Your task to perform on an android device: Clear all items from cart on ebay. Add "beats solo 3" to the cart on ebay, then select checkout. Image 0: 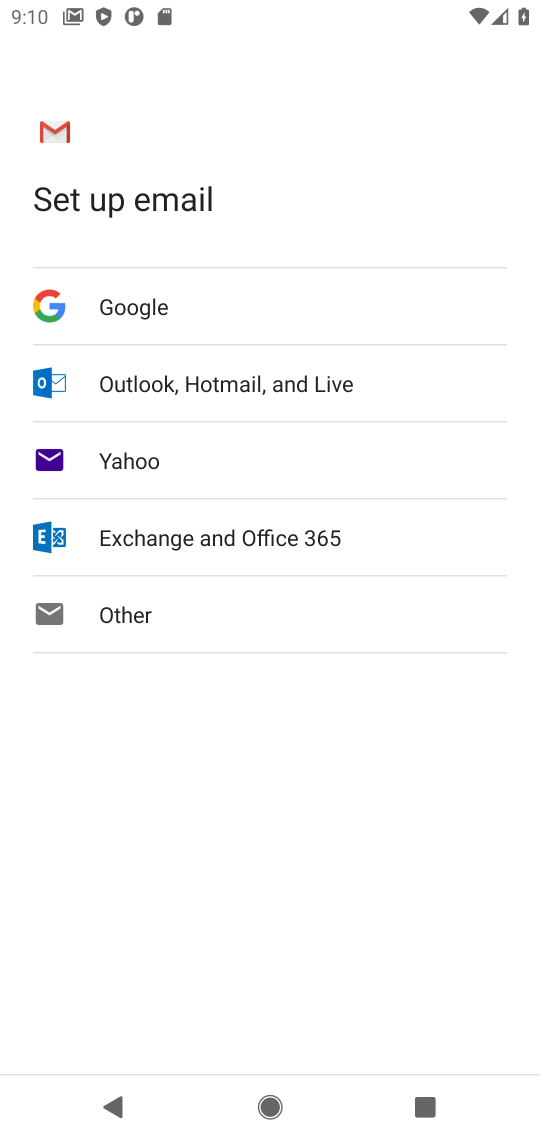
Step 0: press home button
Your task to perform on an android device: Clear all items from cart on ebay. Add "beats solo 3" to the cart on ebay, then select checkout. Image 1: 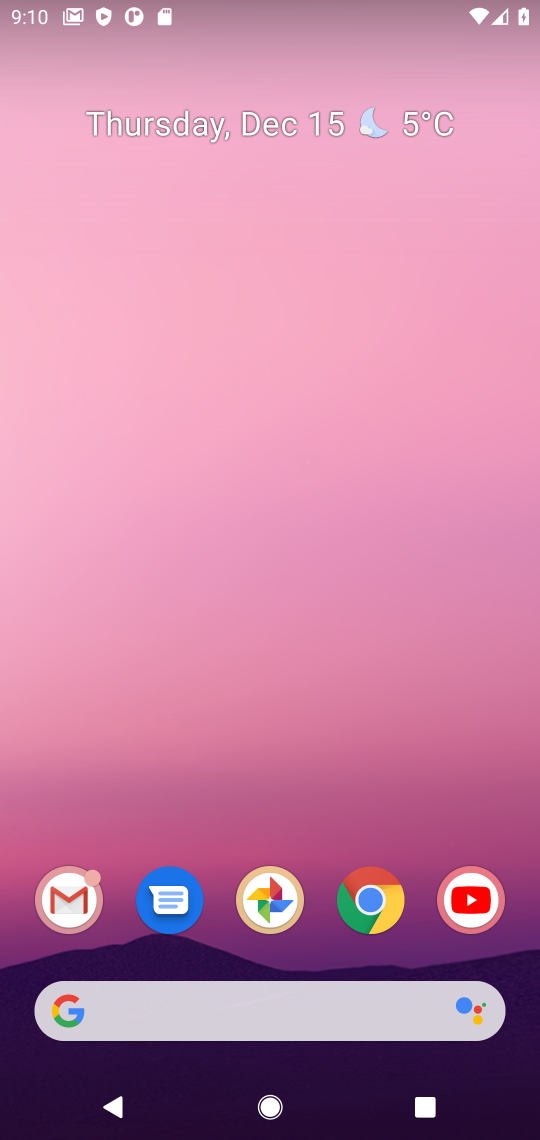
Step 1: click (357, 913)
Your task to perform on an android device: Clear all items from cart on ebay. Add "beats solo 3" to the cart on ebay, then select checkout. Image 2: 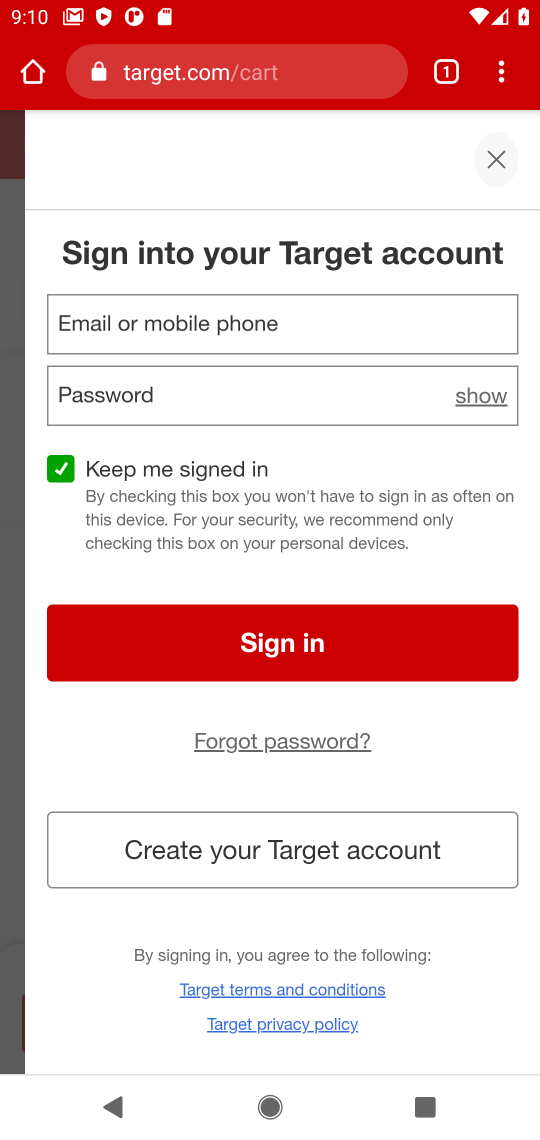
Step 2: click (189, 85)
Your task to perform on an android device: Clear all items from cart on ebay. Add "beats solo 3" to the cart on ebay, then select checkout. Image 3: 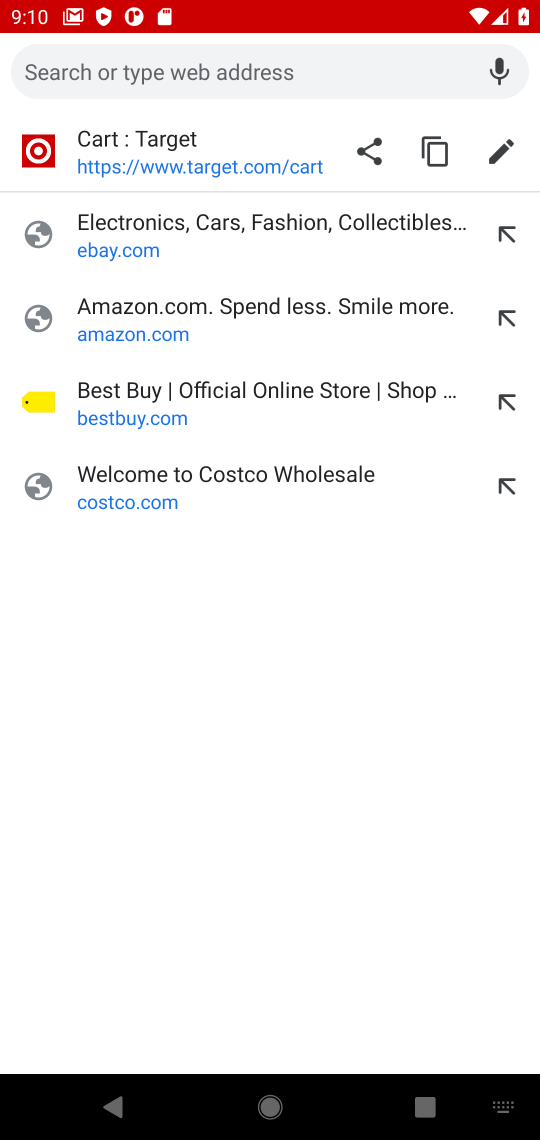
Step 3: click (105, 234)
Your task to perform on an android device: Clear all items from cart on ebay. Add "beats solo 3" to the cart on ebay, then select checkout. Image 4: 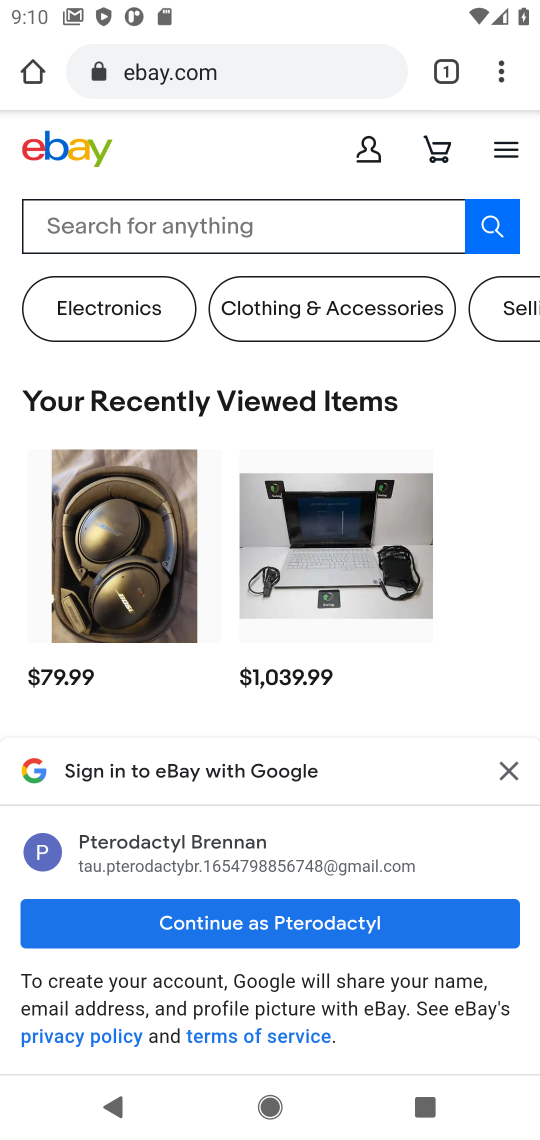
Step 4: click (334, 235)
Your task to perform on an android device: Clear all items from cart on ebay. Add "beats solo 3" to the cart on ebay, then select checkout. Image 5: 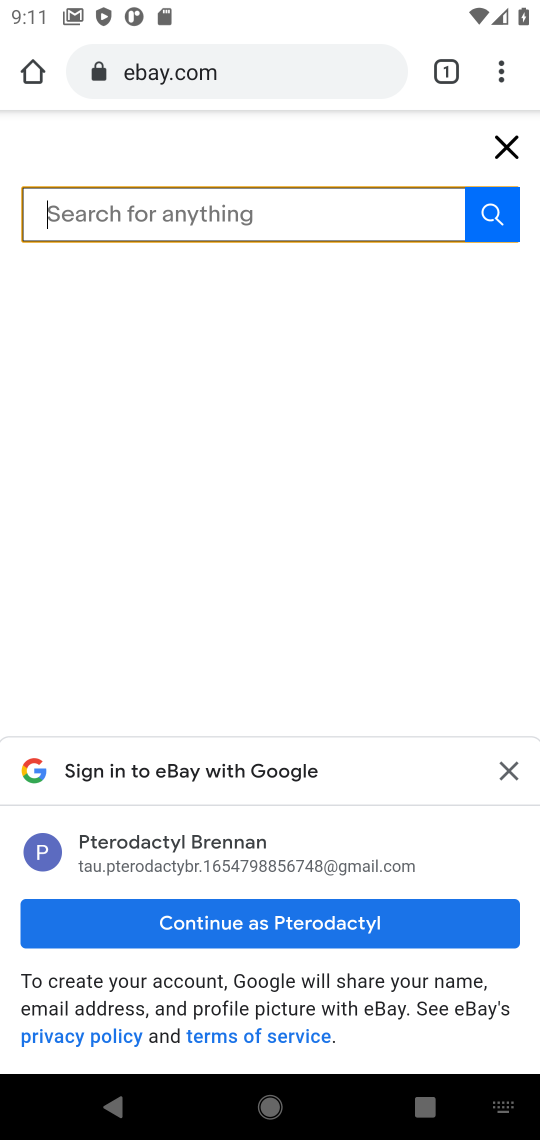
Step 5: click (296, 219)
Your task to perform on an android device: Clear all items from cart on ebay. Add "beats solo 3" to the cart on ebay, then select checkout. Image 6: 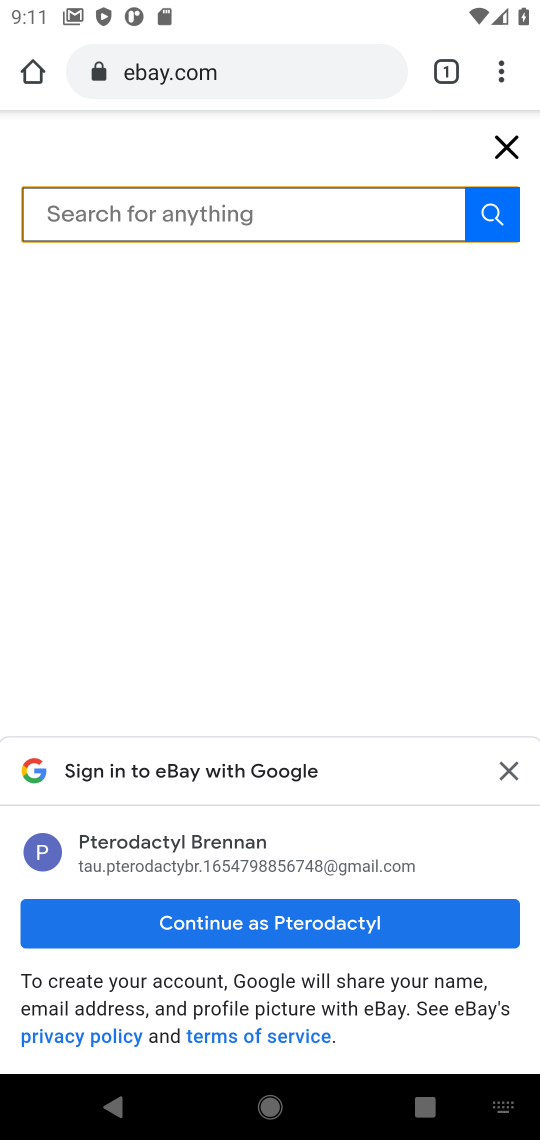
Step 6: type "beats solo 3"
Your task to perform on an android device: Clear all items from cart on ebay. Add "beats solo 3" to the cart on ebay, then select checkout. Image 7: 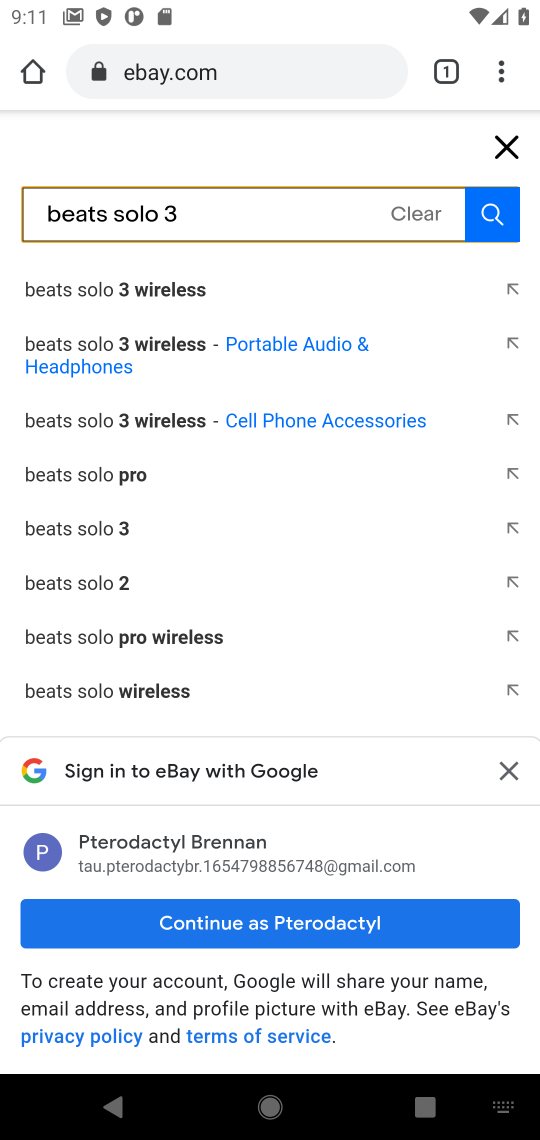
Step 7: click (478, 221)
Your task to perform on an android device: Clear all items from cart on ebay. Add "beats solo 3" to the cart on ebay, then select checkout. Image 8: 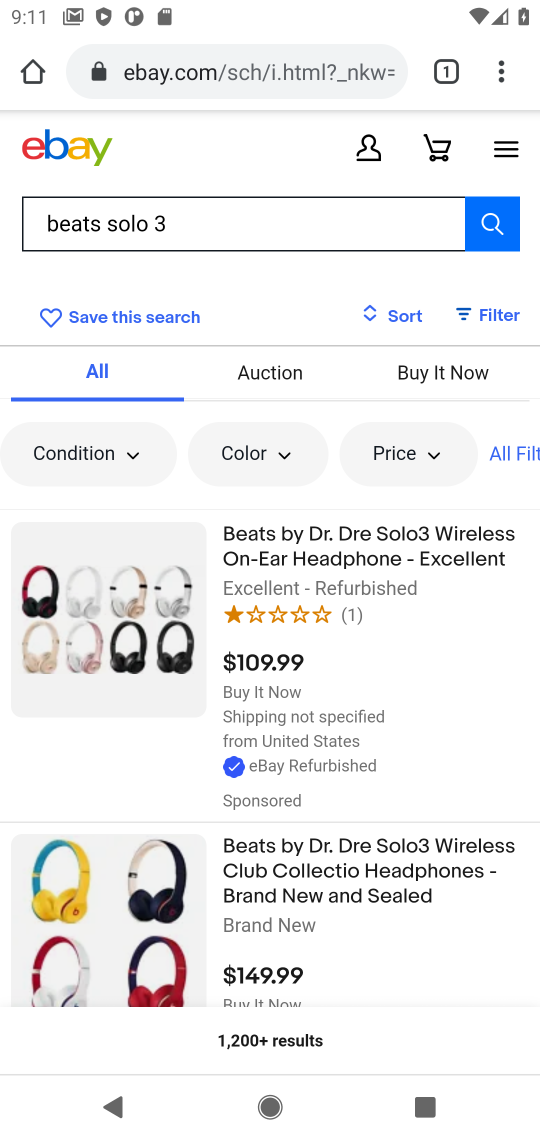
Step 8: click (327, 565)
Your task to perform on an android device: Clear all items from cart on ebay. Add "beats solo 3" to the cart on ebay, then select checkout. Image 9: 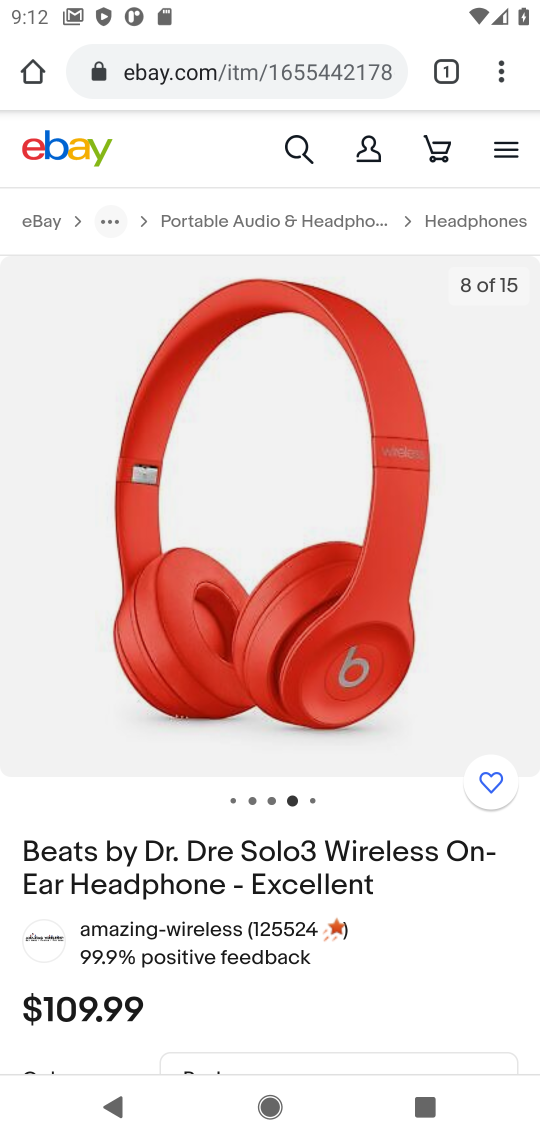
Step 9: drag from (387, 894) to (382, 547)
Your task to perform on an android device: Clear all items from cart on ebay. Add "beats solo 3" to the cart on ebay, then select checkout. Image 10: 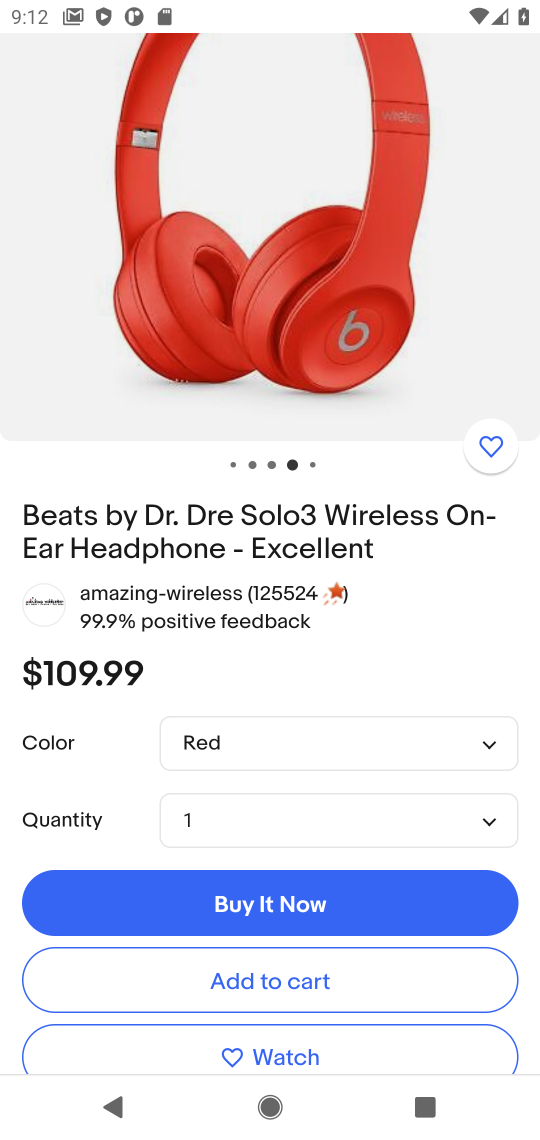
Step 10: click (285, 980)
Your task to perform on an android device: Clear all items from cart on ebay. Add "beats solo 3" to the cart on ebay, then select checkout. Image 11: 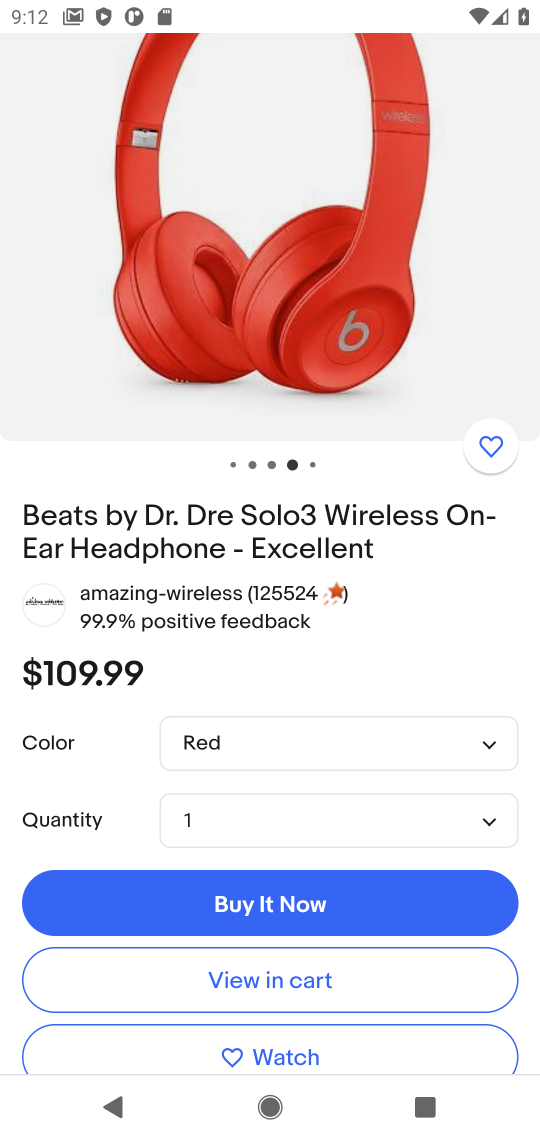
Step 11: click (285, 980)
Your task to perform on an android device: Clear all items from cart on ebay. Add "beats solo 3" to the cart on ebay, then select checkout. Image 12: 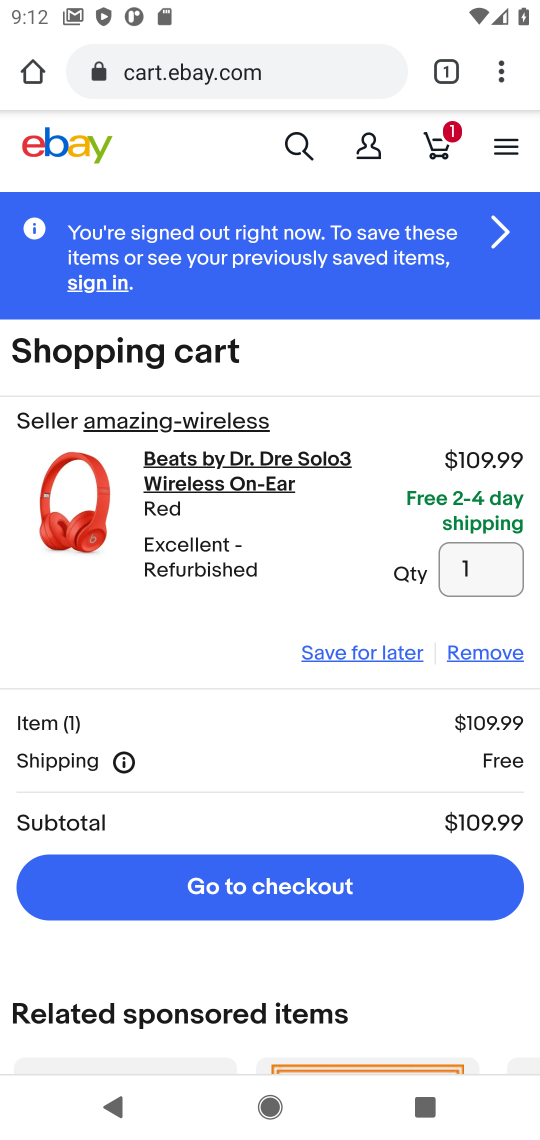
Step 12: click (258, 880)
Your task to perform on an android device: Clear all items from cart on ebay. Add "beats solo 3" to the cart on ebay, then select checkout. Image 13: 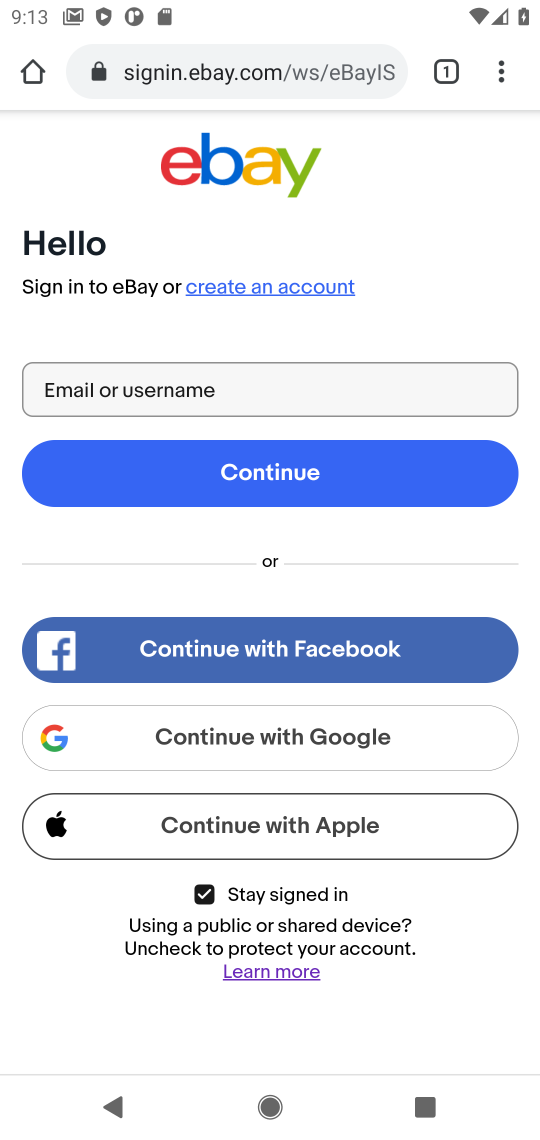
Step 13: task complete